Your task to perform on an android device: open the mobile data screen to see how much data has been used Image 0: 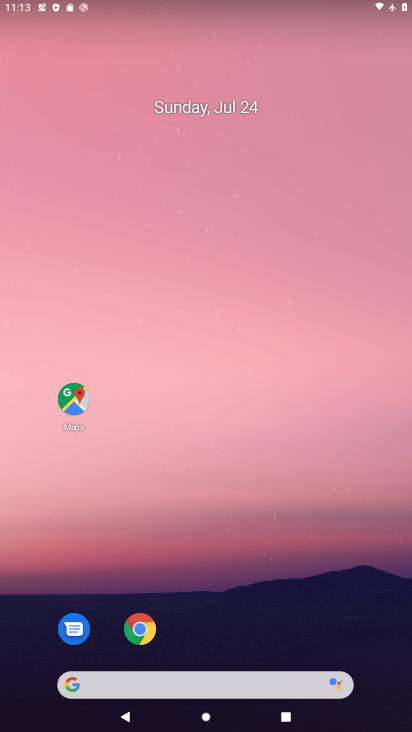
Step 0: click (144, 632)
Your task to perform on an android device: open the mobile data screen to see how much data has been used Image 1: 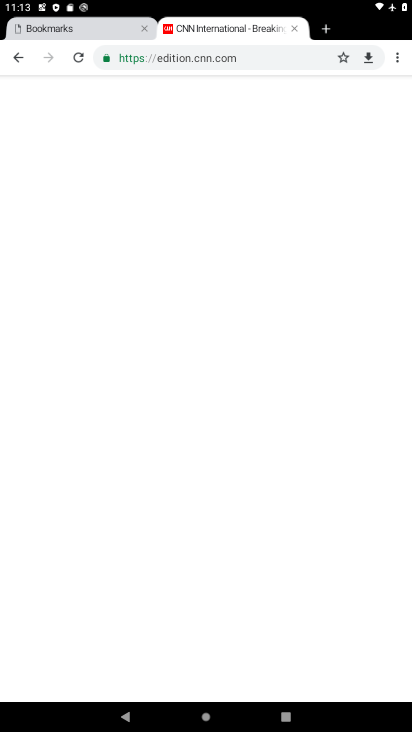
Step 1: click (401, 67)
Your task to perform on an android device: open the mobile data screen to see how much data has been used Image 2: 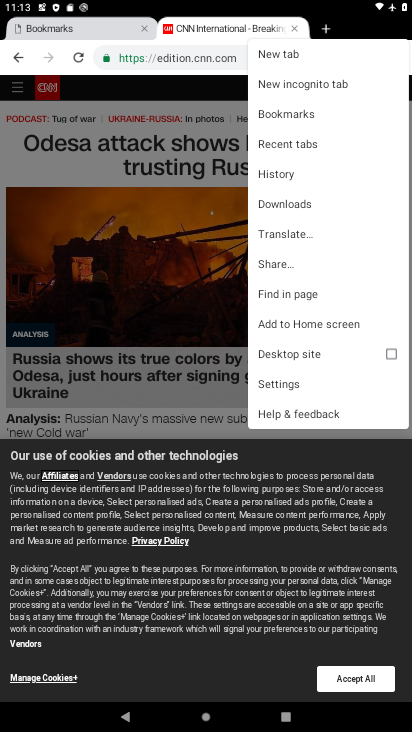
Step 2: click (290, 391)
Your task to perform on an android device: open the mobile data screen to see how much data has been used Image 3: 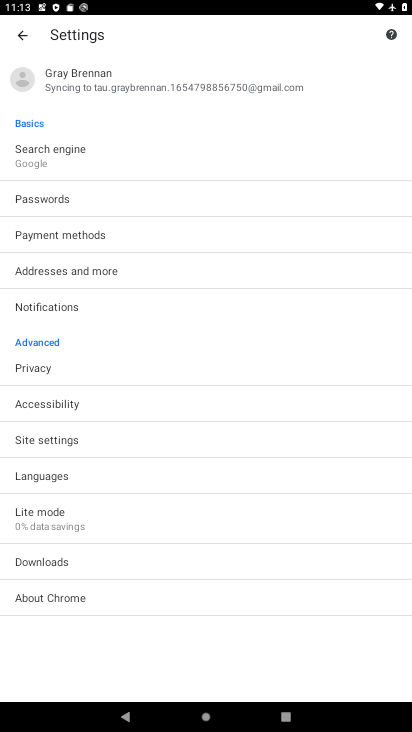
Step 3: task complete